Your task to perform on an android device: Open calendar and show me the fourth week of next month Image 0: 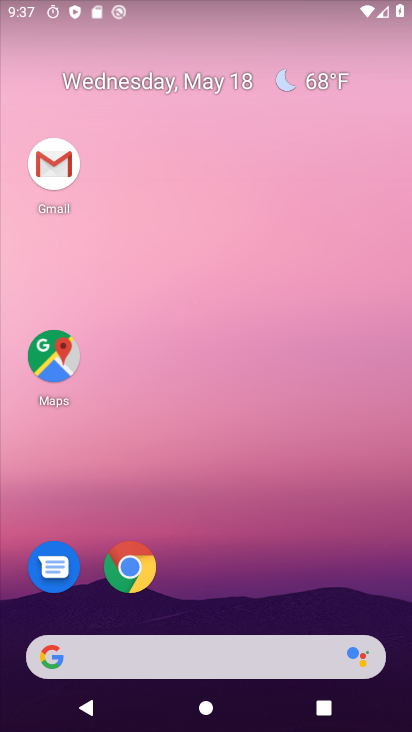
Step 0: drag from (224, 556) to (253, 150)
Your task to perform on an android device: Open calendar and show me the fourth week of next month Image 1: 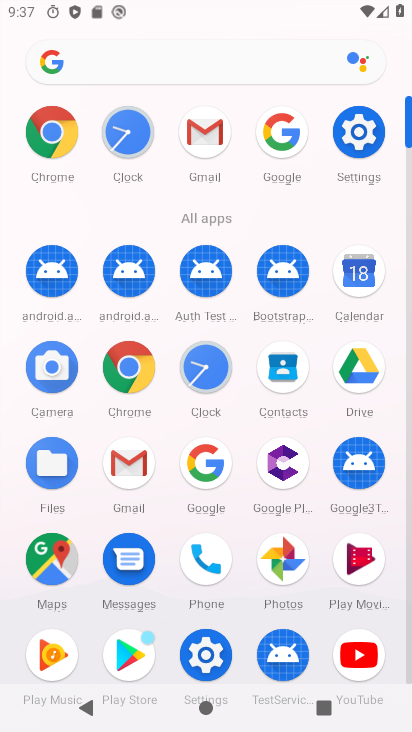
Step 1: click (351, 270)
Your task to perform on an android device: Open calendar and show me the fourth week of next month Image 2: 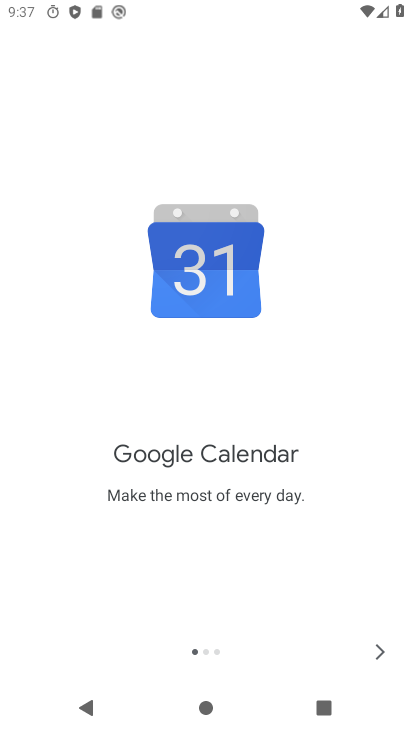
Step 2: click (392, 659)
Your task to perform on an android device: Open calendar and show me the fourth week of next month Image 3: 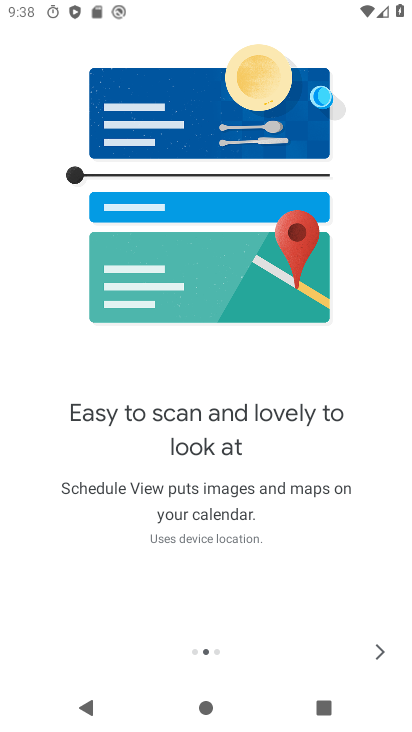
Step 3: click (392, 659)
Your task to perform on an android device: Open calendar and show me the fourth week of next month Image 4: 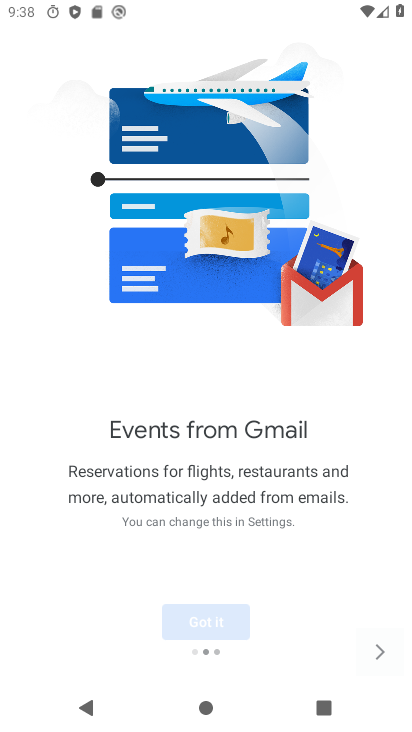
Step 4: click (392, 659)
Your task to perform on an android device: Open calendar and show me the fourth week of next month Image 5: 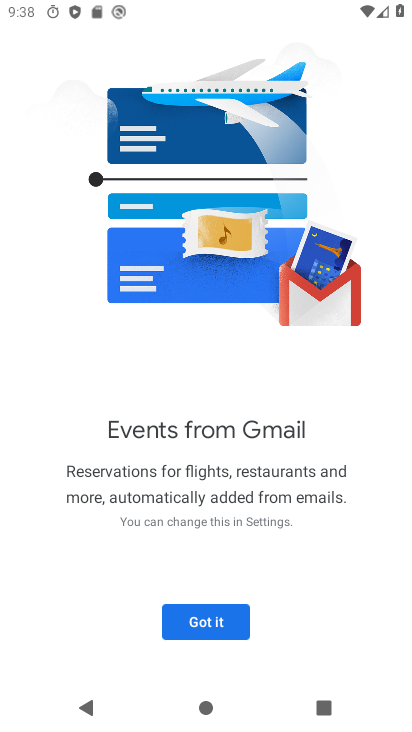
Step 5: click (197, 621)
Your task to perform on an android device: Open calendar and show me the fourth week of next month Image 6: 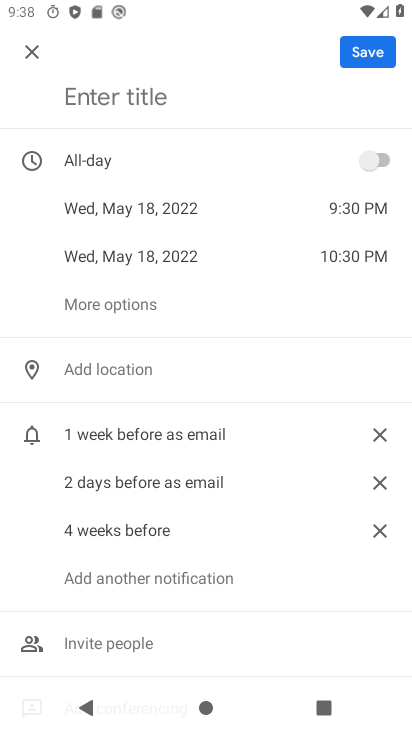
Step 6: click (34, 53)
Your task to perform on an android device: Open calendar and show me the fourth week of next month Image 7: 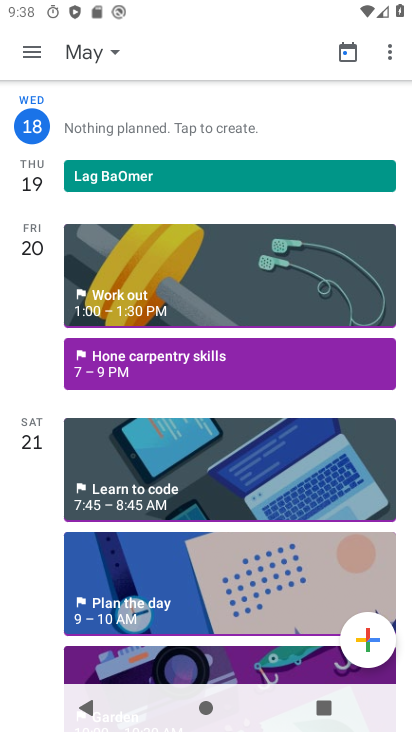
Step 7: click (90, 56)
Your task to perform on an android device: Open calendar and show me the fourth week of next month Image 8: 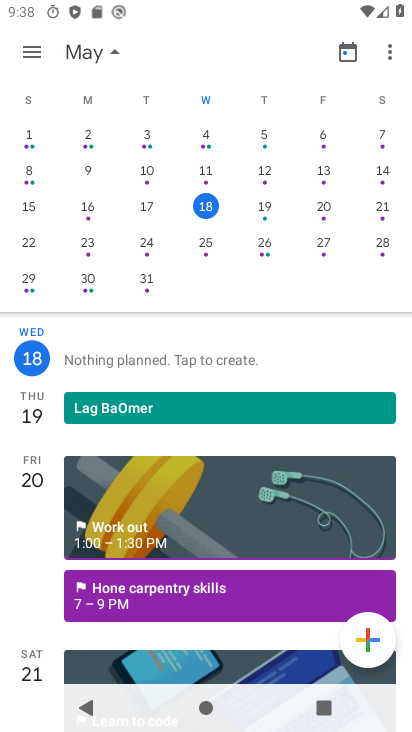
Step 8: drag from (392, 191) to (20, 241)
Your task to perform on an android device: Open calendar and show me the fourth week of next month Image 9: 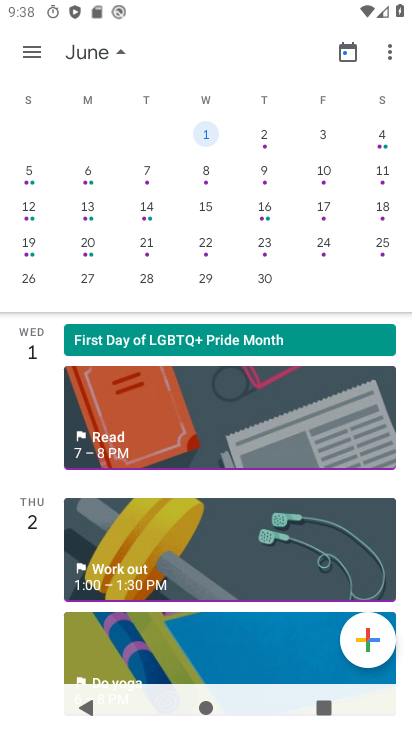
Step 9: click (30, 53)
Your task to perform on an android device: Open calendar and show me the fourth week of next month Image 10: 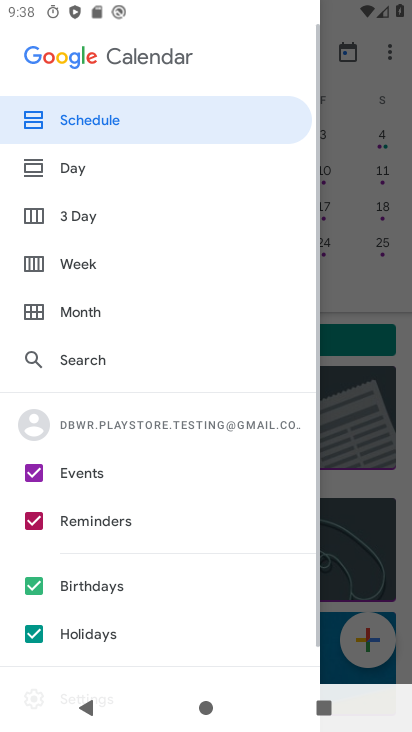
Step 10: click (93, 275)
Your task to perform on an android device: Open calendar and show me the fourth week of next month Image 11: 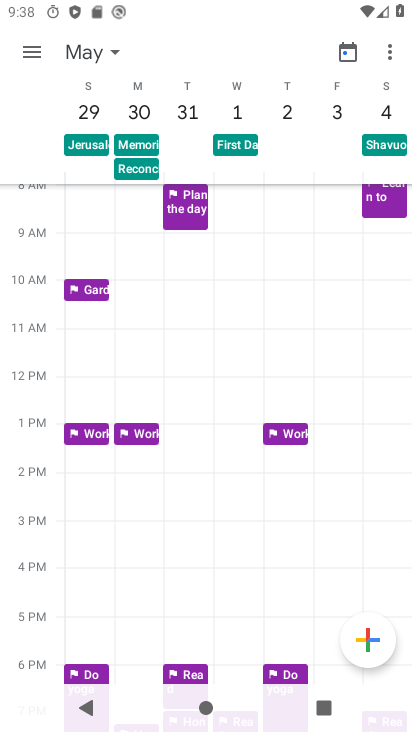
Step 11: task complete